Your task to perform on an android device: Open calendar and show me the third week of next month Image 0: 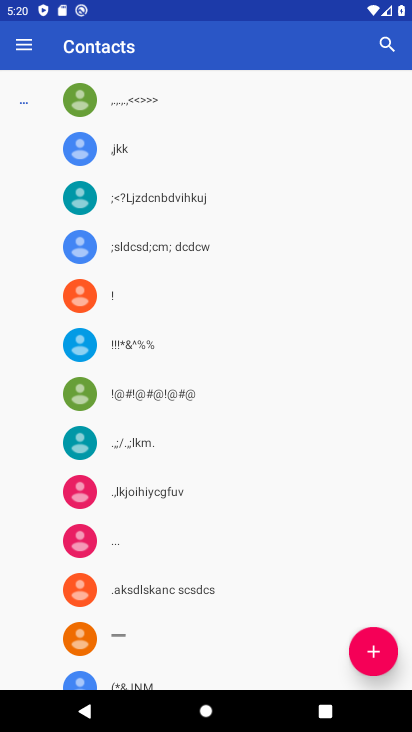
Step 0: press home button
Your task to perform on an android device: Open calendar and show me the third week of next month Image 1: 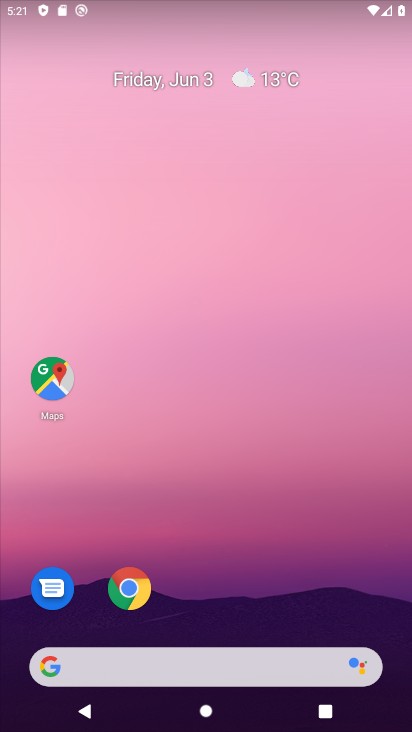
Step 1: drag from (16, 590) to (211, 150)
Your task to perform on an android device: Open calendar and show me the third week of next month Image 2: 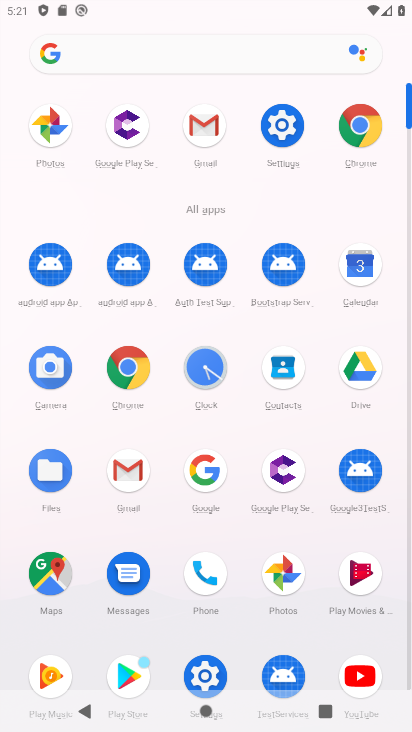
Step 2: click (57, 257)
Your task to perform on an android device: Open calendar and show me the third week of next month Image 3: 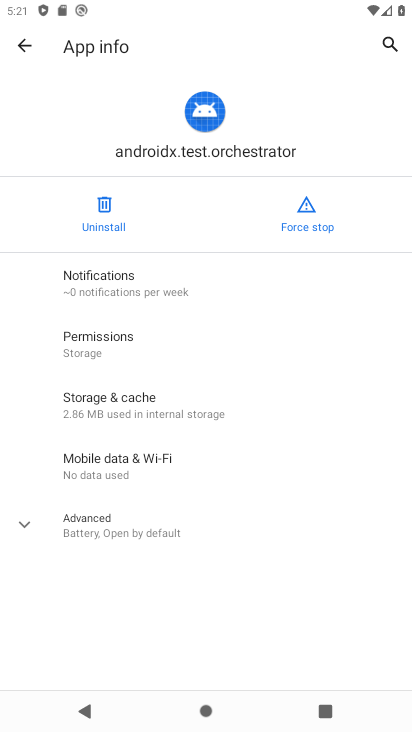
Step 3: click (361, 267)
Your task to perform on an android device: Open calendar and show me the third week of next month Image 4: 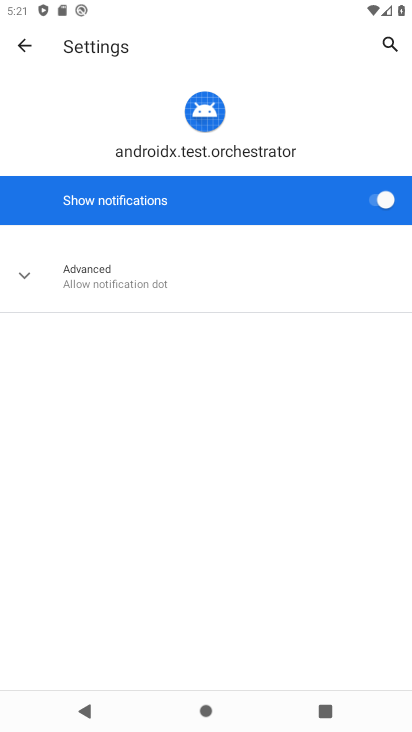
Step 4: press back button
Your task to perform on an android device: Open calendar and show me the third week of next month Image 5: 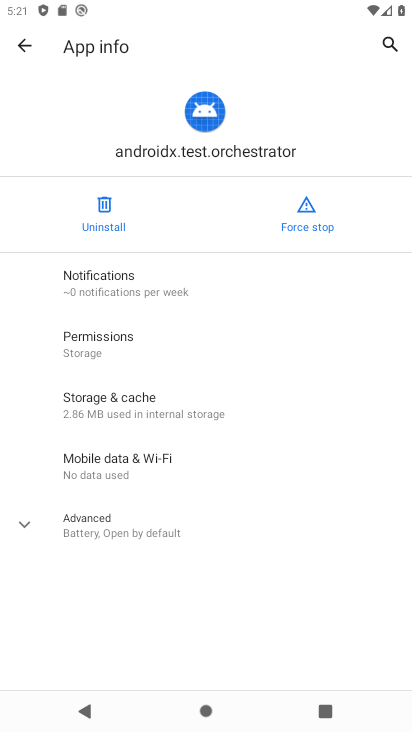
Step 5: press back button
Your task to perform on an android device: Open calendar and show me the third week of next month Image 6: 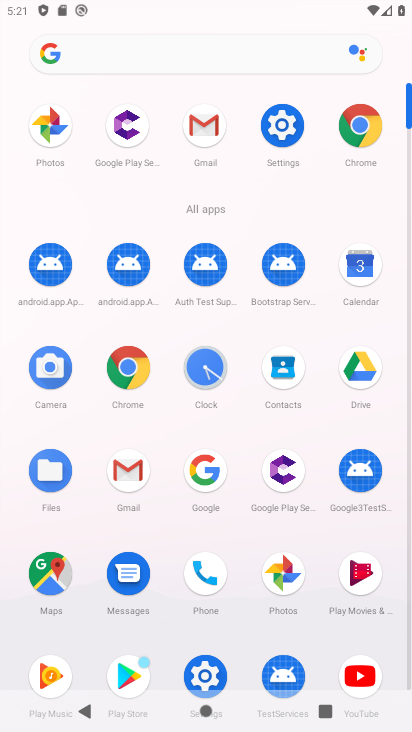
Step 6: click (371, 258)
Your task to perform on an android device: Open calendar and show me the third week of next month Image 7: 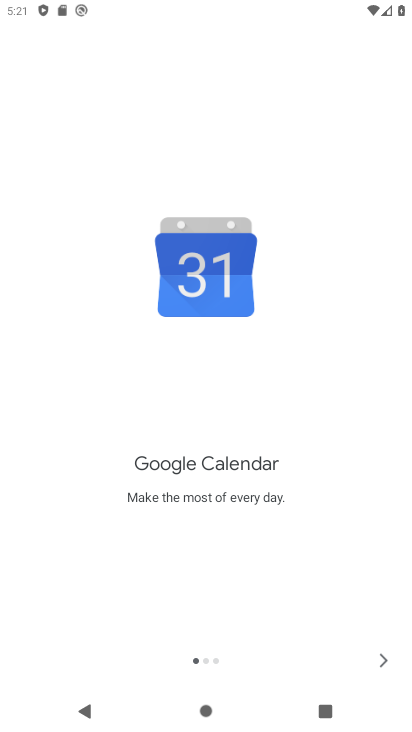
Step 7: click (387, 661)
Your task to perform on an android device: Open calendar and show me the third week of next month Image 8: 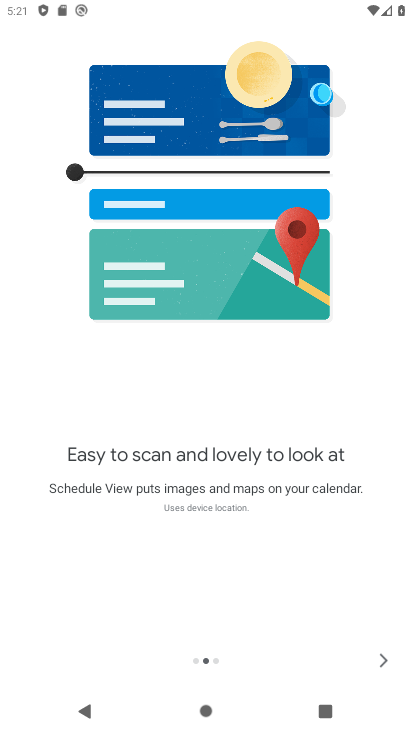
Step 8: click (387, 661)
Your task to perform on an android device: Open calendar and show me the third week of next month Image 9: 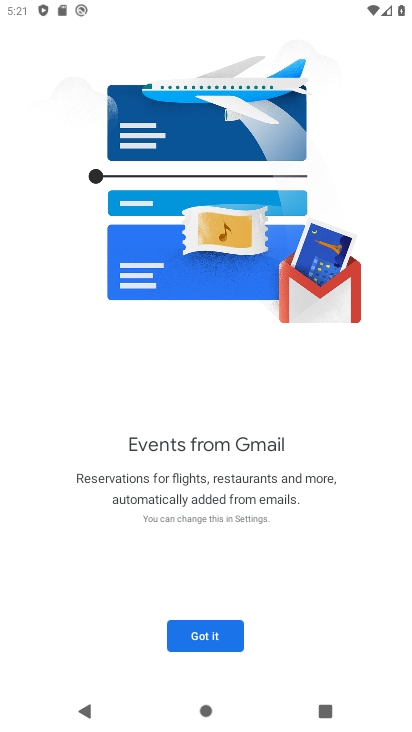
Step 9: click (227, 638)
Your task to perform on an android device: Open calendar and show me the third week of next month Image 10: 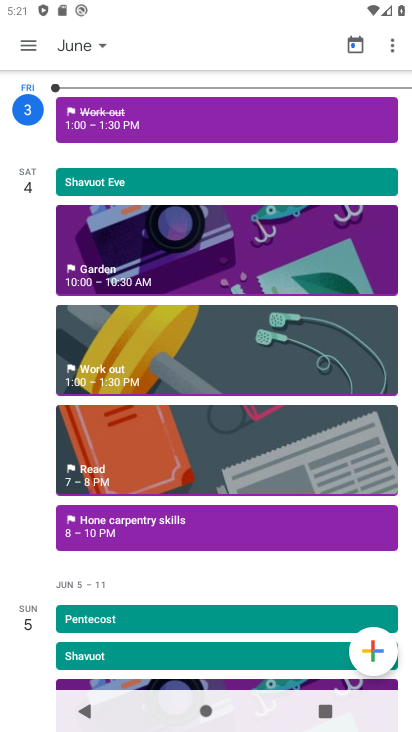
Step 10: click (83, 52)
Your task to perform on an android device: Open calendar and show me the third week of next month Image 11: 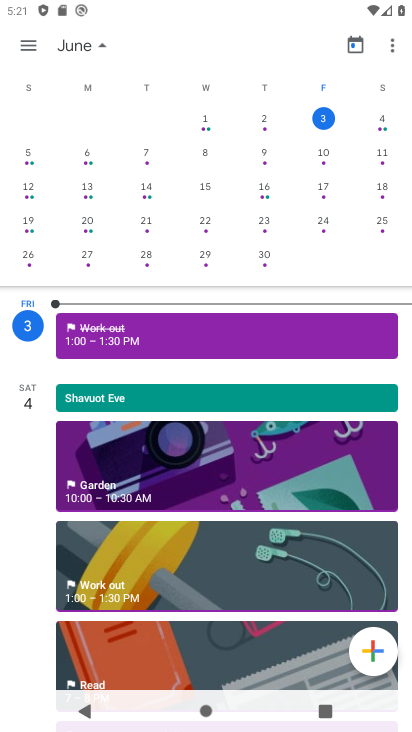
Step 11: drag from (410, 176) to (1, 115)
Your task to perform on an android device: Open calendar and show me the third week of next month Image 12: 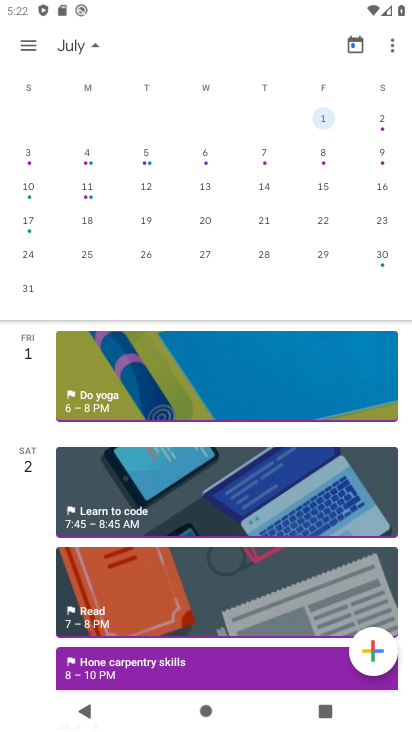
Step 12: click (210, 158)
Your task to perform on an android device: Open calendar and show me the third week of next month Image 13: 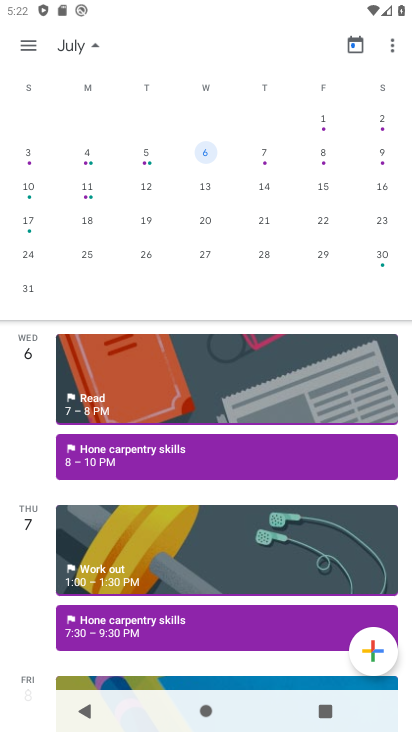
Step 13: click (210, 193)
Your task to perform on an android device: Open calendar and show me the third week of next month Image 14: 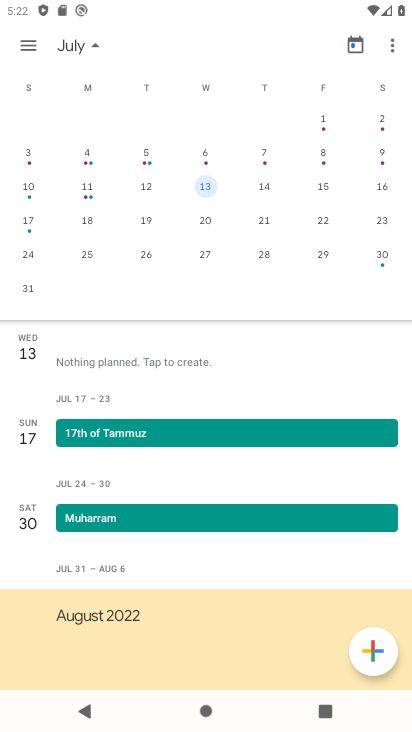
Step 14: task complete